Your task to perform on an android device: Open display settings Image 0: 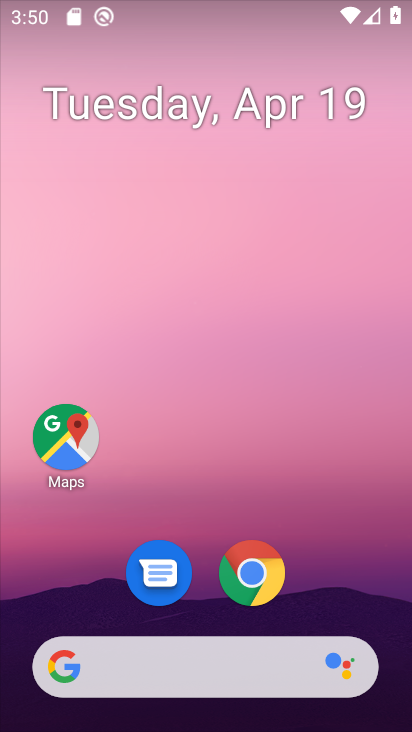
Step 0: drag from (237, 398) to (303, 70)
Your task to perform on an android device: Open display settings Image 1: 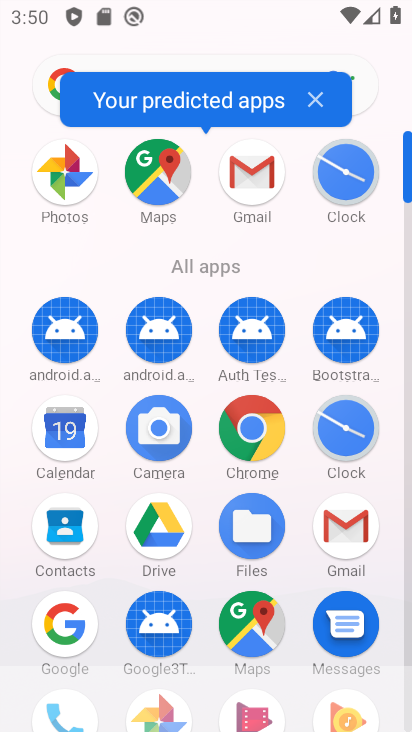
Step 1: drag from (171, 626) to (289, 225)
Your task to perform on an android device: Open display settings Image 2: 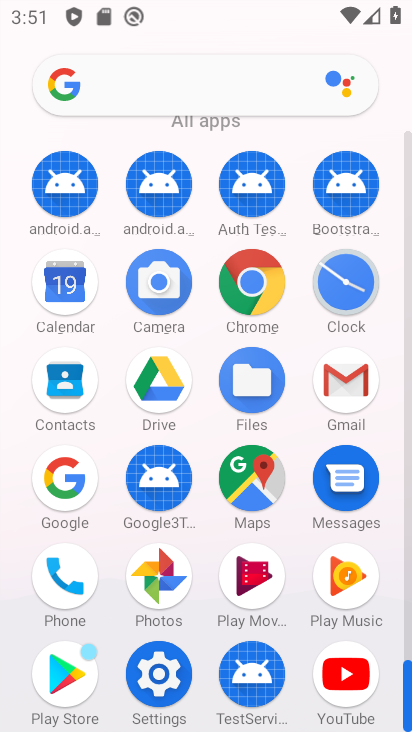
Step 2: click (157, 674)
Your task to perform on an android device: Open display settings Image 3: 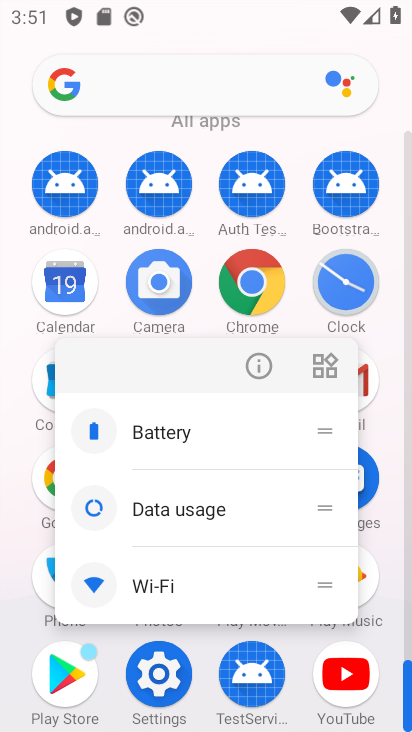
Step 3: click (159, 671)
Your task to perform on an android device: Open display settings Image 4: 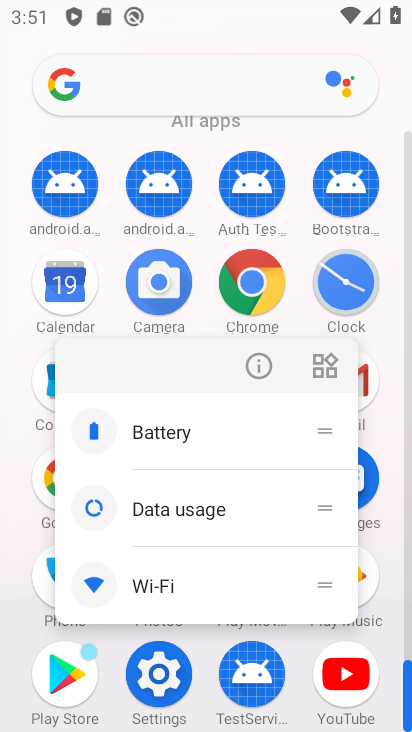
Step 4: click (161, 669)
Your task to perform on an android device: Open display settings Image 5: 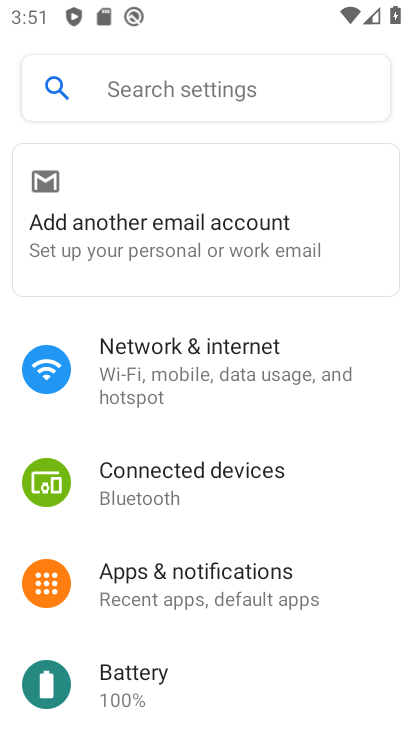
Step 5: drag from (221, 651) to (384, 227)
Your task to perform on an android device: Open display settings Image 6: 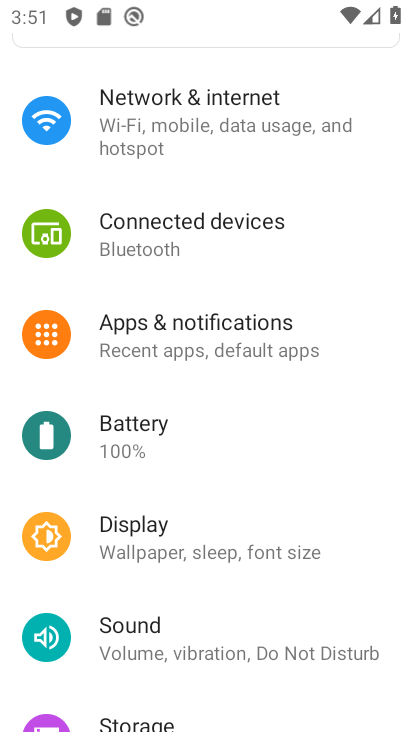
Step 6: click (210, 550)
Your task to perform on an android device: Open display settings Image 7: 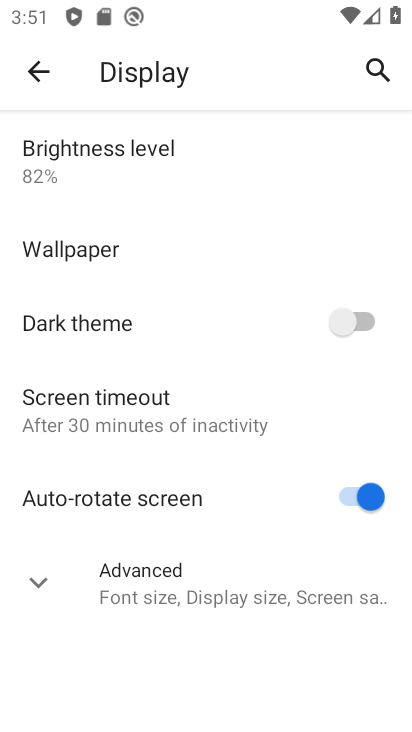
Step 7: task complete